Your task to perform on an android device: toggle translation in the chrome app Image 0: 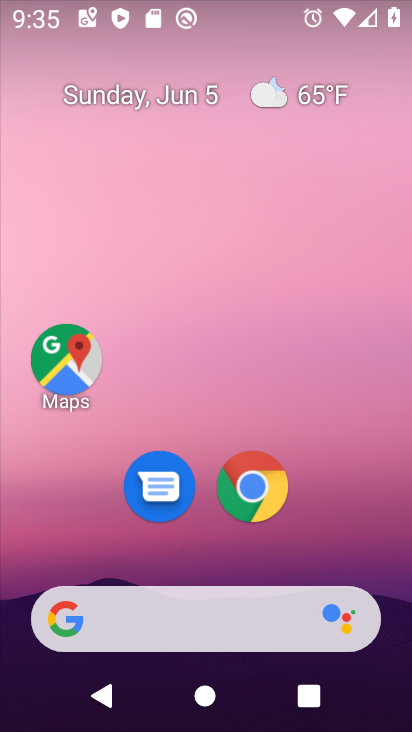
Step 0: drag from (329, 505) to (347, 184)
Your task to perform on an android device: toggle translation in the chrome app Image 1: 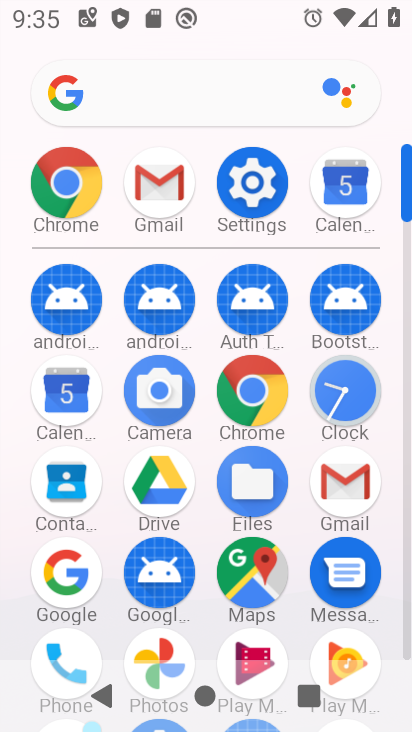
Step 1: click (263, 398)
Your task to perform on an android device: toggle translation in the chrome app Image 2: 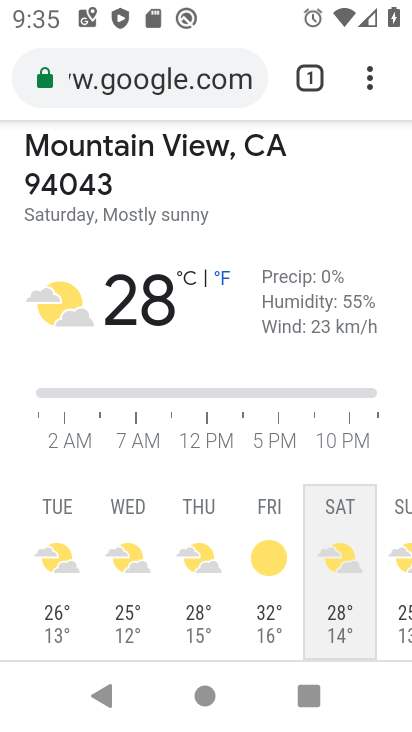
Step 2: drag from (375, 80) to (199, 547)
Your task to perform on an android device: toggle translation in the chrome app Image 3: 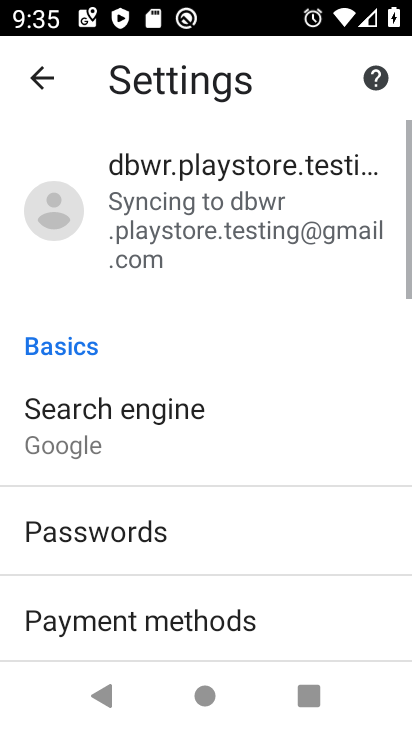
Step 3: drag from (295, 608) to (286, 275)
Your task to perform on an android device: toggle translation in the chrome app Image 4: 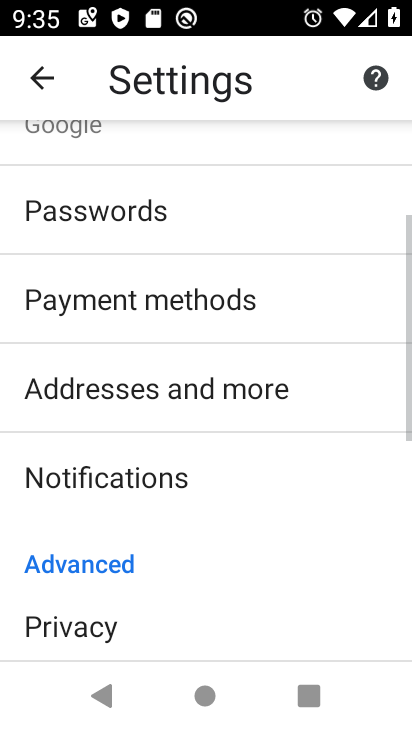
Step 4: drag from (279, 592) to (285, 349)
Your task to perform on an android device: toggle translation in the chrome app Image 5: 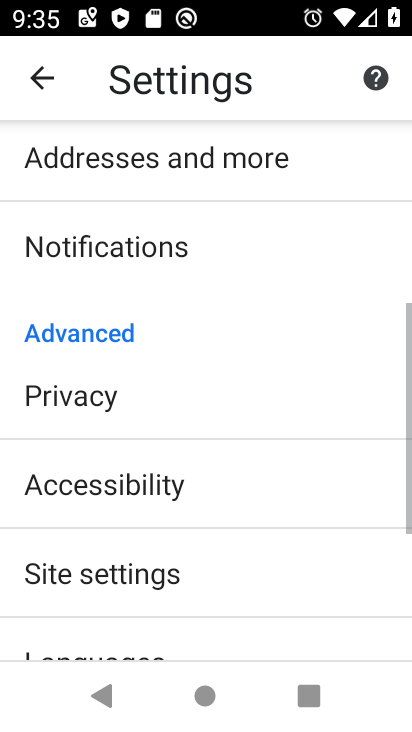
Step 5: drag from (261, 609) to (329, 312)
Your task to perform on an android device: toggle translation in the chrome app Image 6: 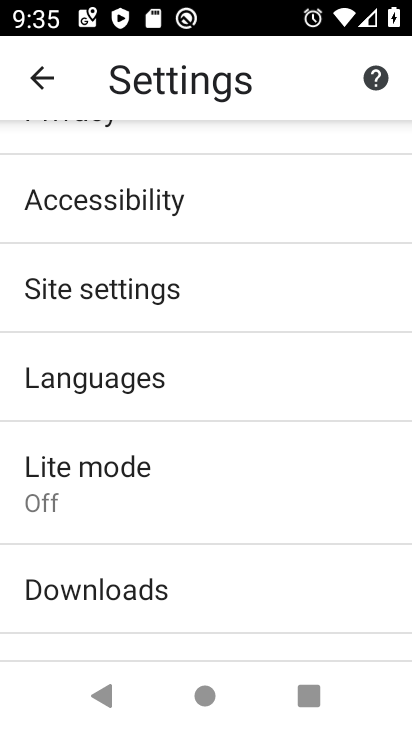
Step 6: click (229, 372)
Your task to perform on an android device: toggle translation in the chrome app Image 7: 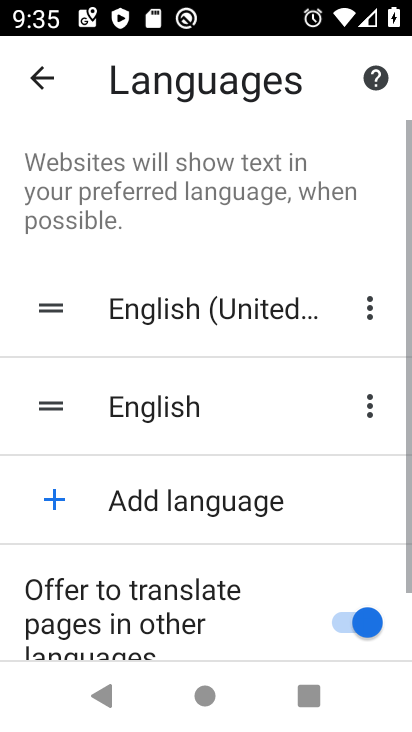
Step 7: drag from (305, 624) to (310, 286)
Your task to perform on an android device: toggle translation in the chrome app Image 8: 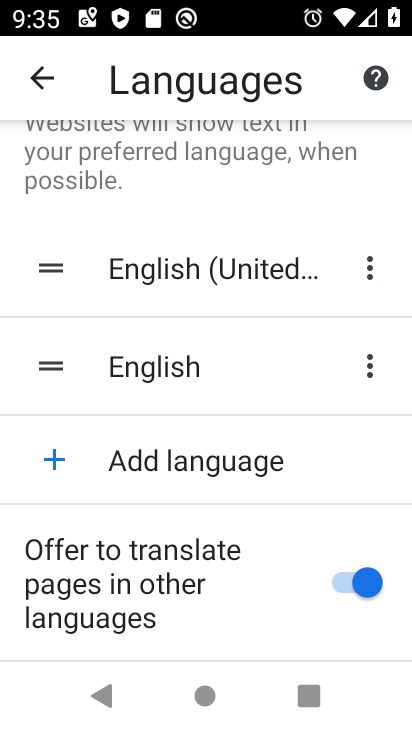
Step 8: click (348, 591)
Your task to perform on an android device: toggle translation in the chrome app Image 9: 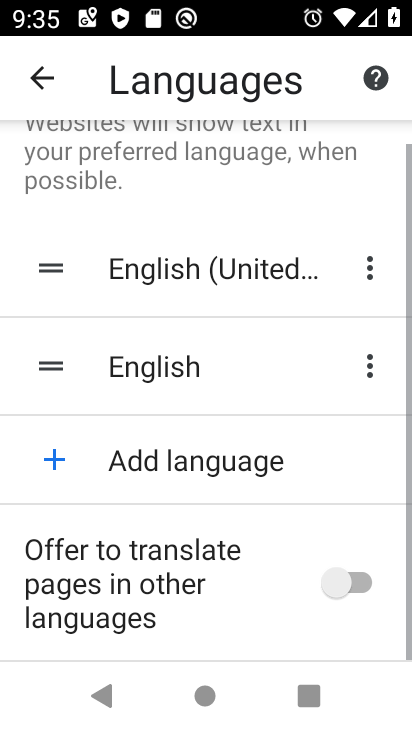
Step 9: task complete